Your task to perform on an android device: empty trash in google photos Image 0: 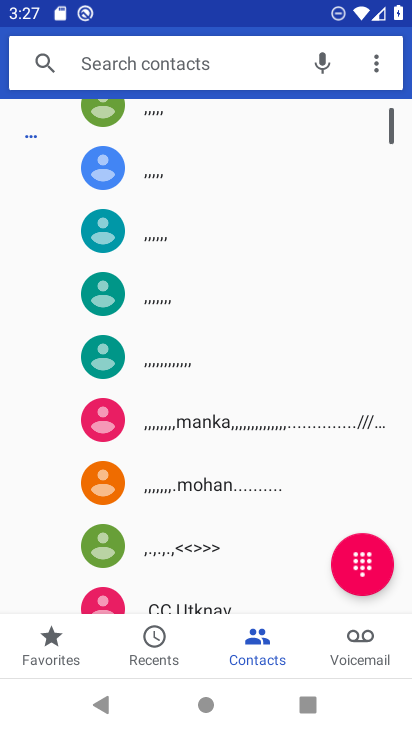
Step 0: press home button
Your task to perform on an android device: empty trash in google photos Image 1: 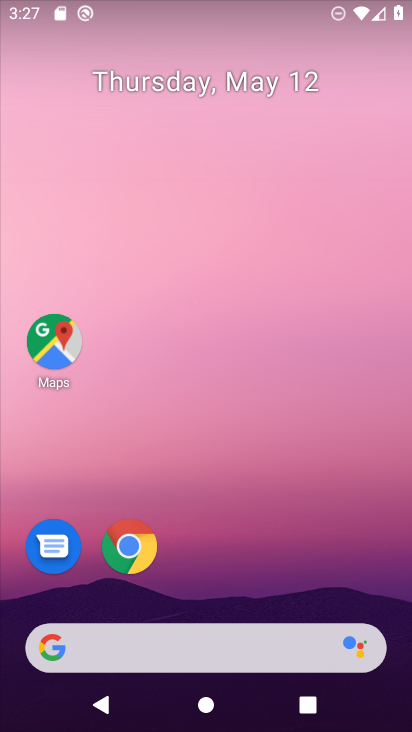
Step 1: drag from (262, 569) to (271, 276)
Your task to perform on an android device: empty trash in google photos Image 2: 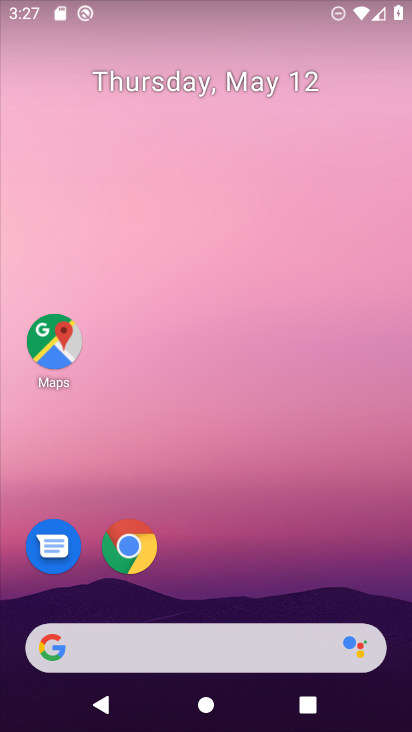
Step 2: drag from (209, 553) to (262, 226)
Your task to perform on an android device: empty trash in google photos Image 3: 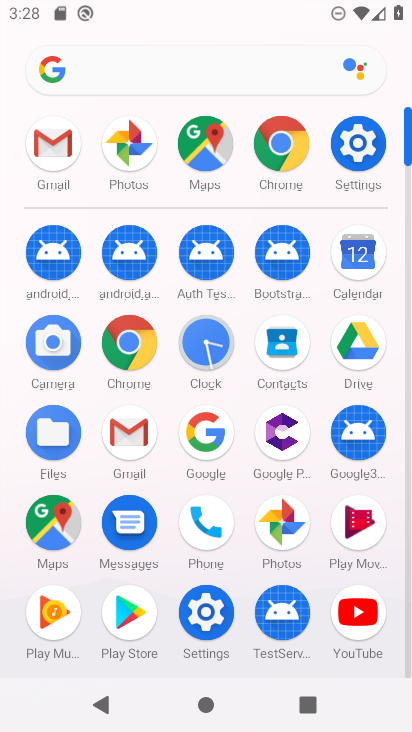
Step 3: click (281, 518)
Your task to perform on an android device: empty trash in google photos Image 4: 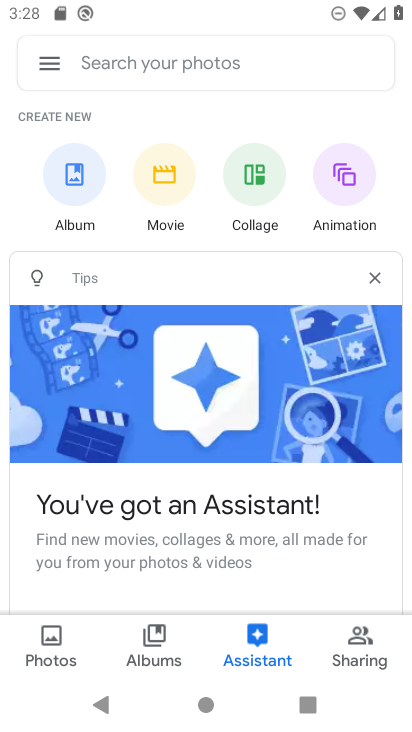
Step 4: click (45, 60)
Your task to perform on an android device: empty trash in google photos Image 5: 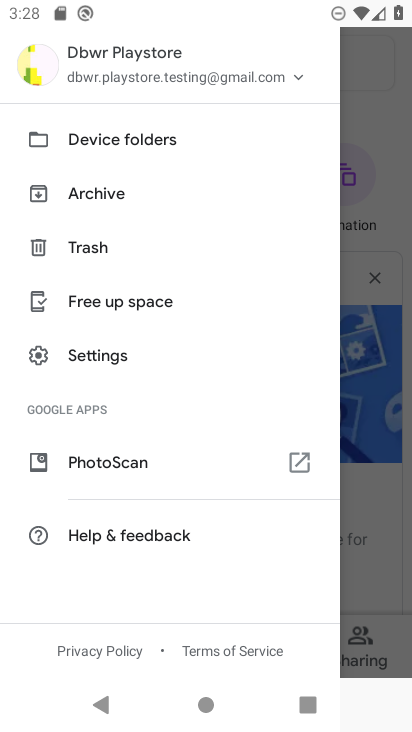
Step 5: click (105, 245)
Your task to perform on an android device: empty trash in google photos Image 6: 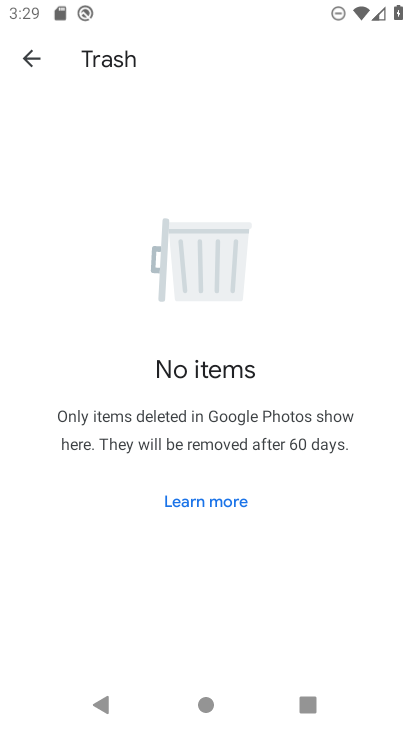
Step 6: task complete